Your task to perform on an android device: Open the Play Movies app and select the watchlist tab. Image 0: 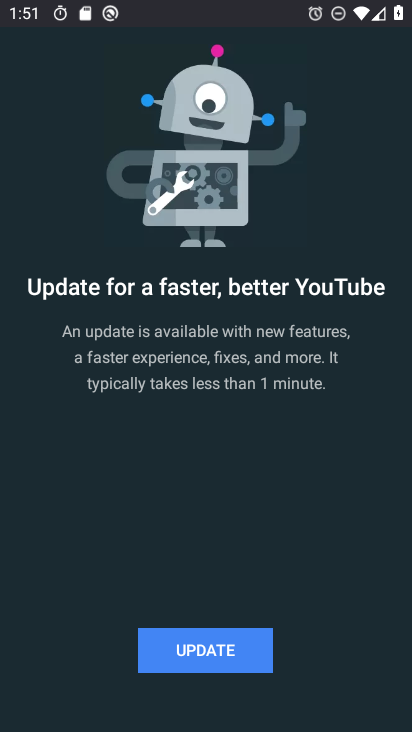
Step 0: press home button
Your task to perform on an android device: Open the Play Movies app and select the watchlist tab. Image 1: 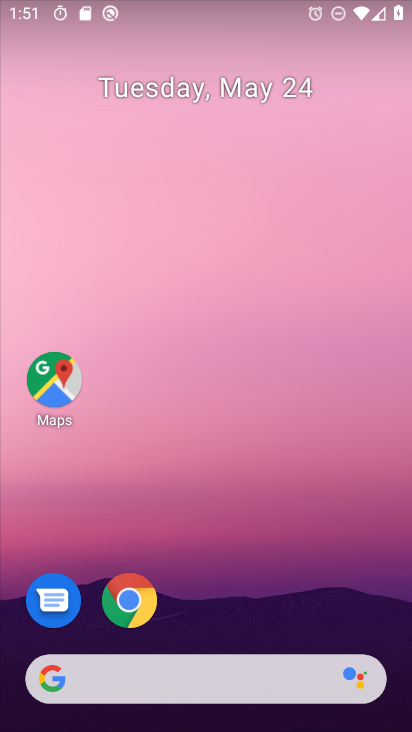
Step 1: drag from (249, 604) to (237, 137)
Your task to perform on an android device: Open the Play Movies app and select the watchlist tab. Image 2: 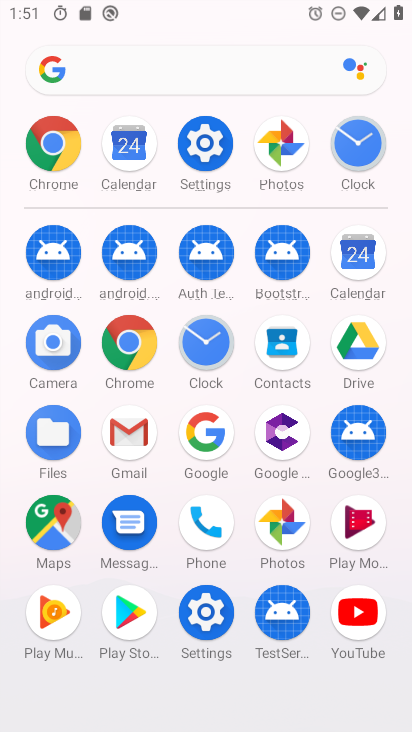
Step 2: click (356, 524)
Your task to perform on an android device: Open the Play Movies app and select the watchlist tab. Image 3: 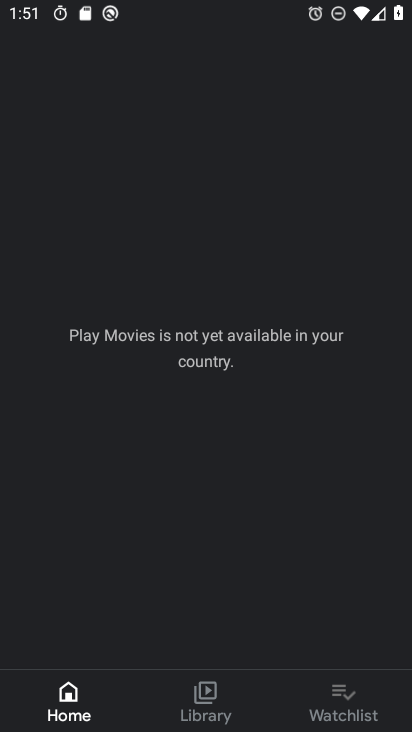
Step 3: click (370, 706)
Your task to perform on an android device: Open the Play Movies app and select the watchlist tab. Image 4: 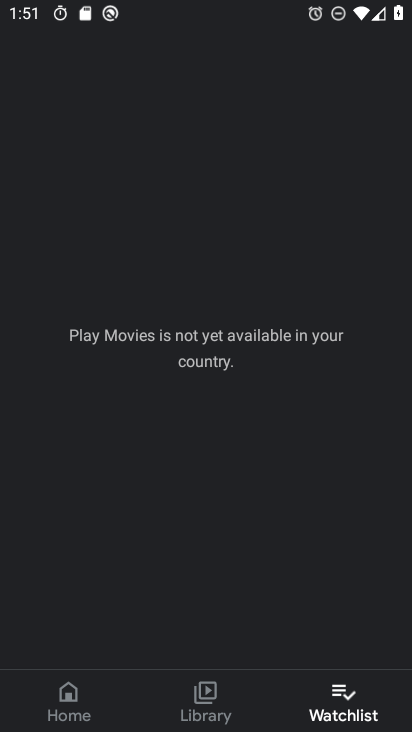
Step 4: task complete